Your task to perform on an android device: turn on sleep mode Image 0: 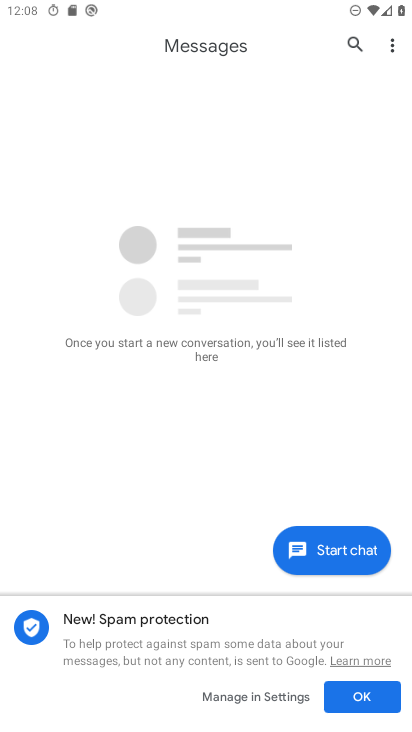
Step 0: press home button
Your task to perform on an android device: turn on sleep mode Image 1: 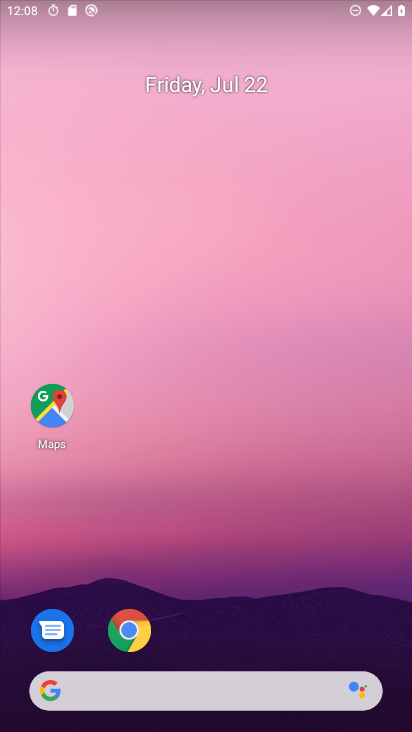
Step 1: drag from (306, 585) to (254, 111)
Your task to perform on an android device: turn on sleep mode Image 2: 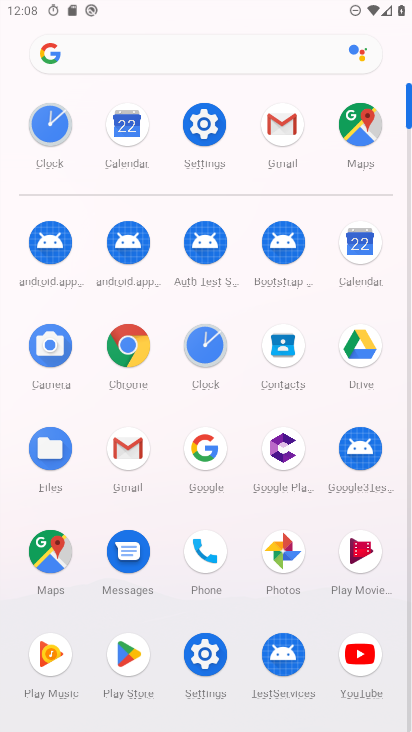
Step 2: click (191, 124)
Your task to perform on an android device: turn on sleep mode Image 3: 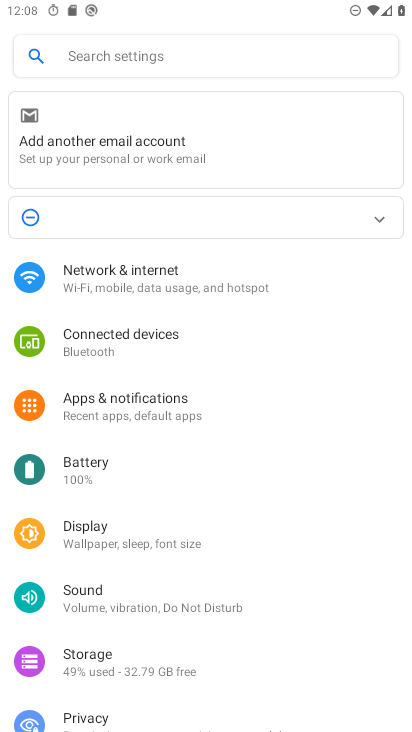
Step 3: click (117, 531)
Your task to perform on an android device: turn on sleep mode Image 4: 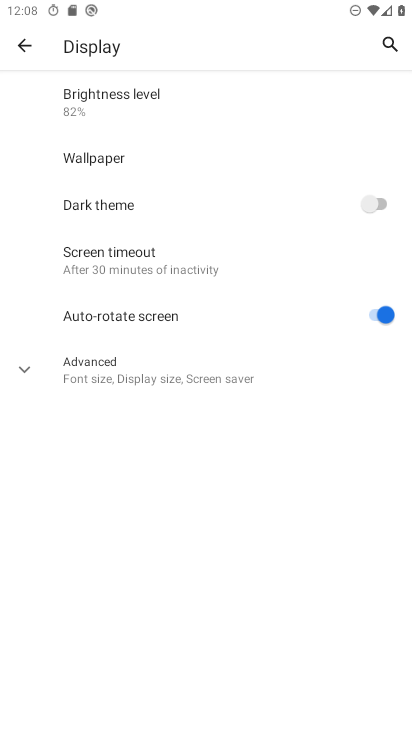
Step 4: click (61, 370)
Your task to perform on an android device: turn on sleep mode Image 5: 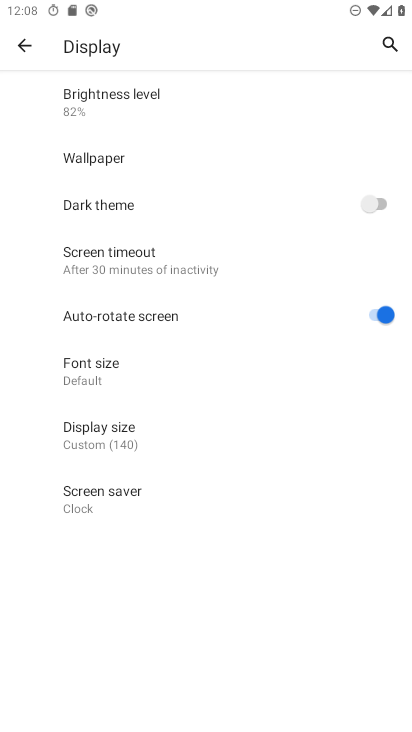
Step 5: task complete